Your task to perform on an android device: Is it going to rain today? Image 0: 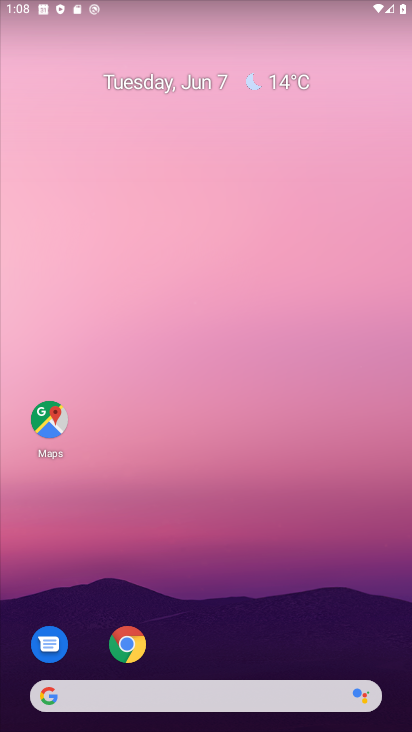
Step 0: click (259, 696)
Your task to perform on an android device: Is it going to rain today? Image 1: 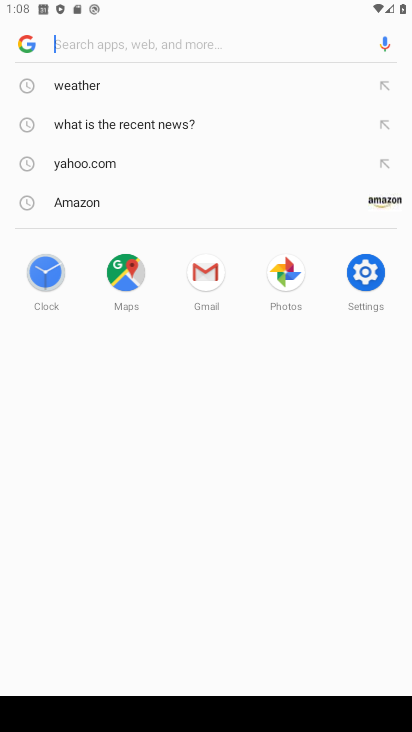
Step 1: click (88, 90)
Your task to perform on an android device: Is it going to rain today? Image 2: 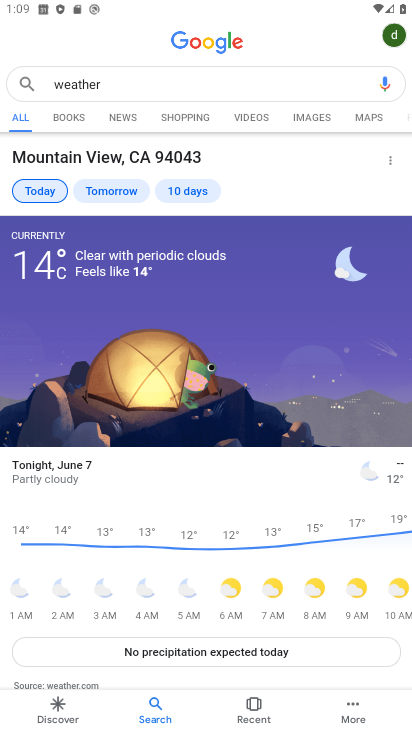
Step 2: task complete